Your task to perform on an android device: change timer sound Image 0: 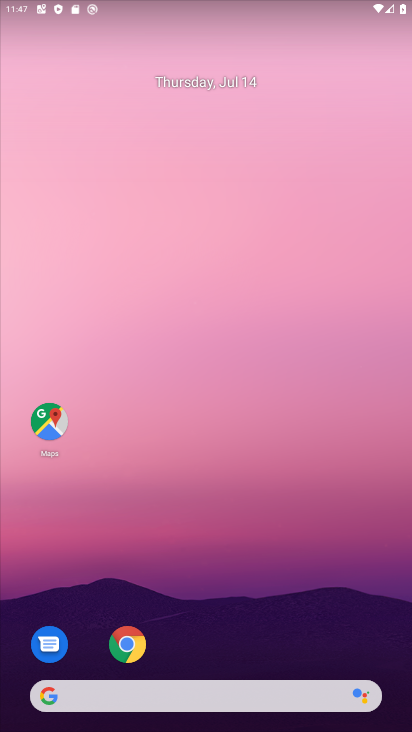
Step 0: drag from (232, 679) to (205, 306)
Your task to perform on an android device: change timer sound Image 1: 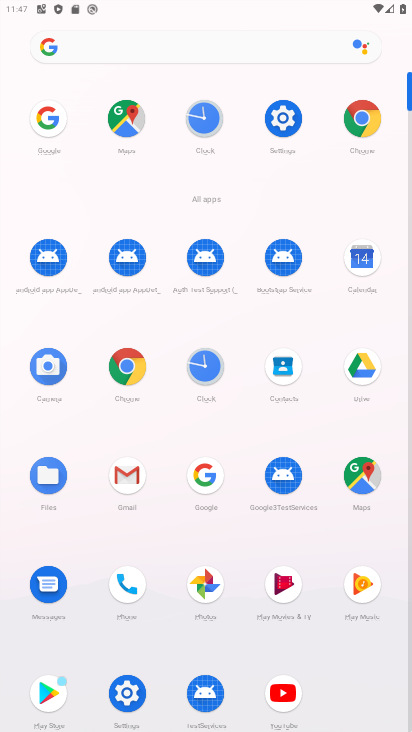
Step 1: click (206, 369)
Your task to perform on an android device: change timer sound Image 2: 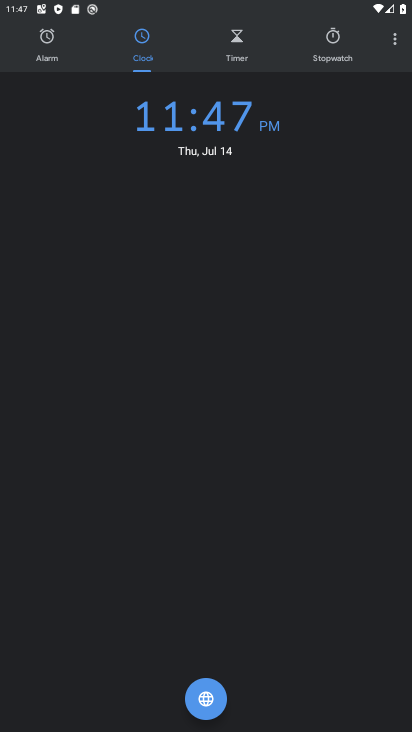
Step 2: click (397, 44)
Your task to perform on an android device: change timer sound Image 3: 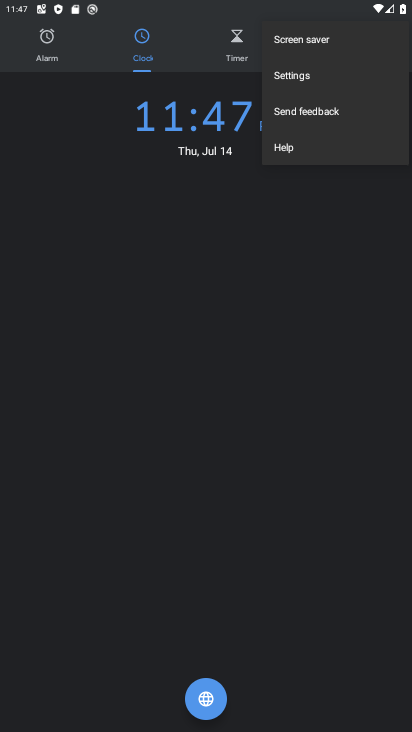
Step 3: click (301, 74)
Your task to perform on an android device: change timer sound Image 4: 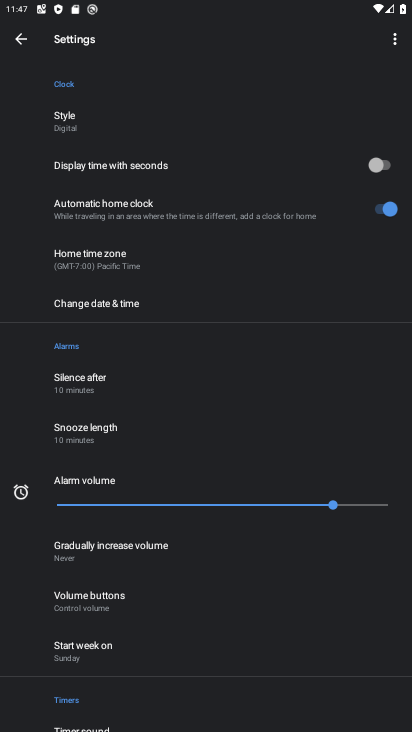
Step 4: drag from (120, 669) to (113, 298)
Your task to perform on an android device: change timer sound Image 5: 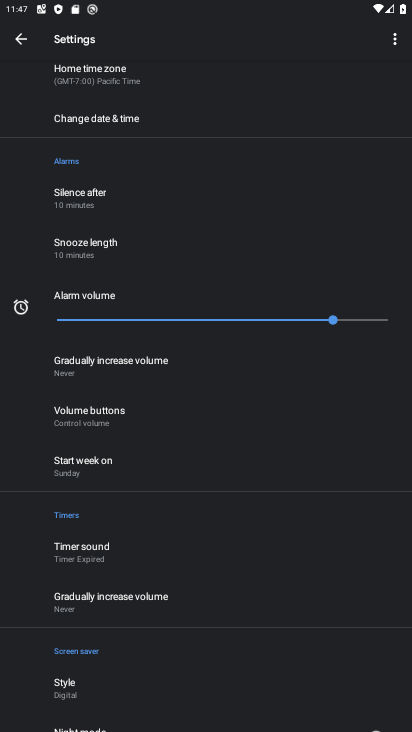
Step 5: click (92, 553)
Your task to perform on an android device: change timer sound Image 6: 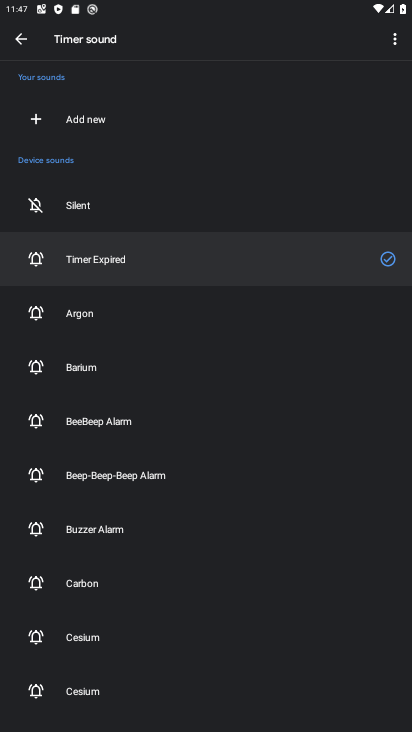
Step 6: click (67, 359)
Your task to perform on an android device: change timer sound Image 7: 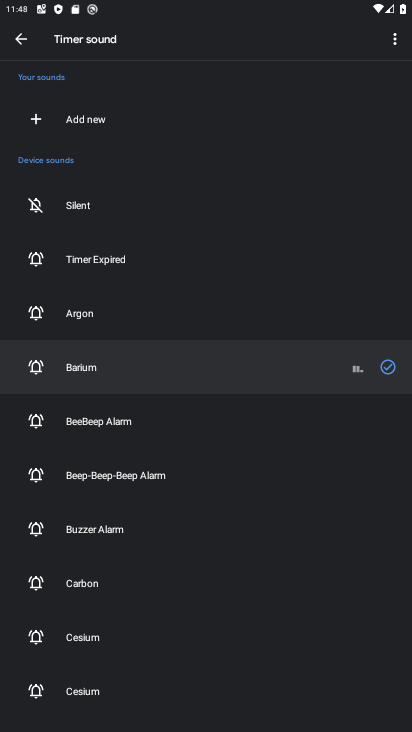
Step 7: task complete